Your task to perform on an android device: search for starred emails in the gmail app Image 0: 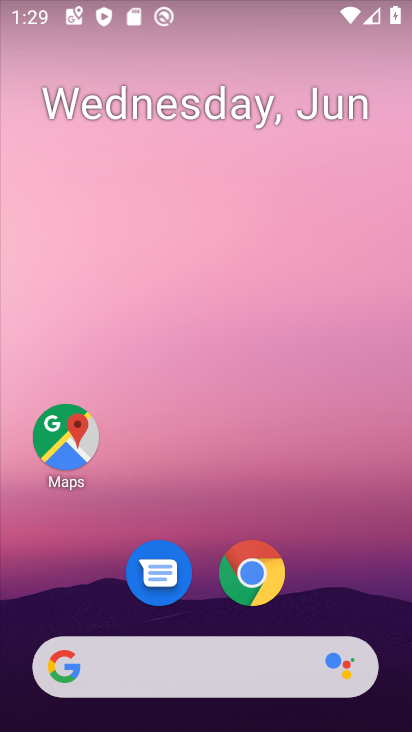
Step 0: drag from (338, 596) to (293, 190)
Your task to perform on an android device: search for starred emails in the gmail app Image 1: 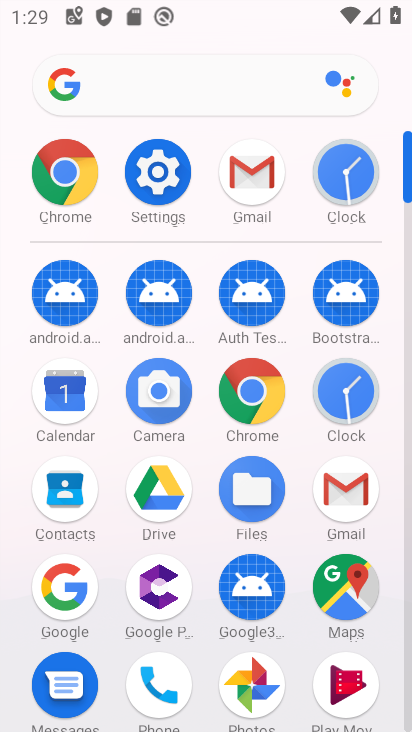
Step 1: click (328, 500)
Your task to perform on an android device: search for starred emails in the gmail app Image 2: 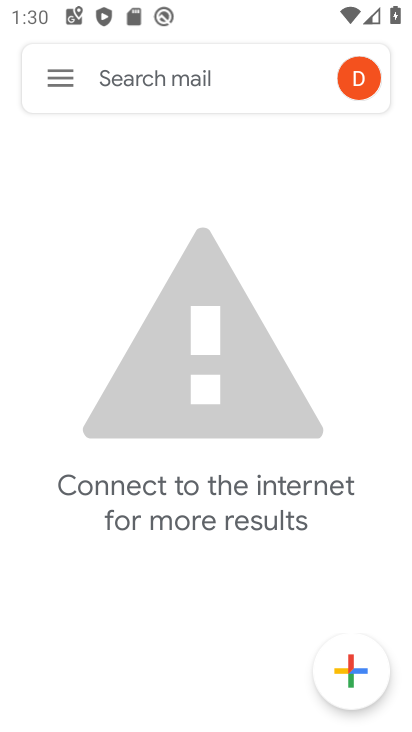
Step 2: click (66, 72)
Your task to perform on an android device: search for starred emails in the gmail app Image 3: 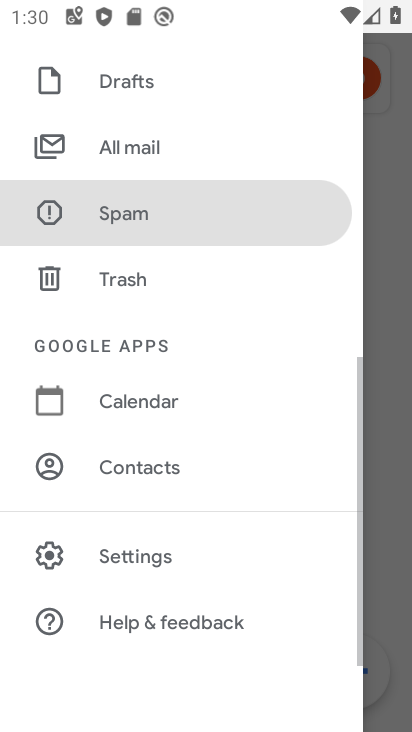
Step 3: drag from (228, 202) to (210, 545)
Your task to perform on an android device: search for starred emails in the gmail app Image 4: 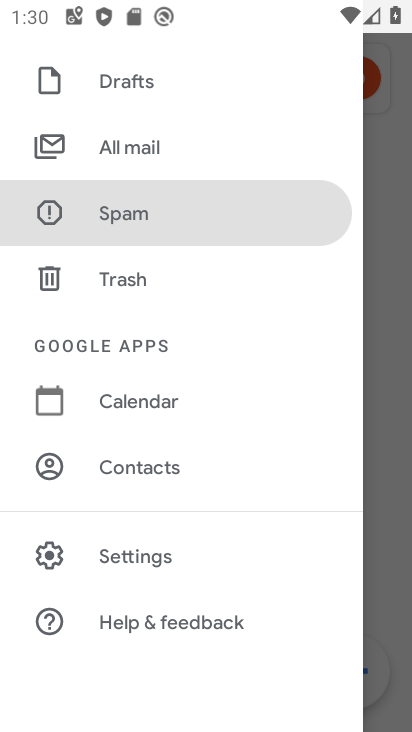
Step 4: drag from (178, 145) to (237, 514)
Your task to perform on an android device: search for starred emails in the gmail app Image 5: 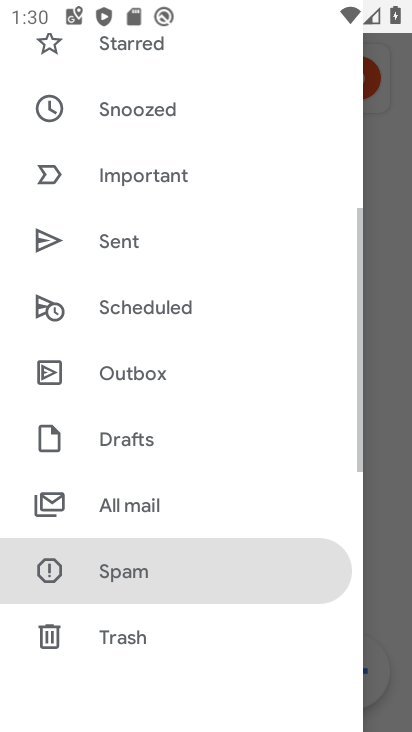
Step 5: drag from (233, 193) to (258, 597)
Your task to perform on an android device: search for starred emails in the gmail app Image 6: 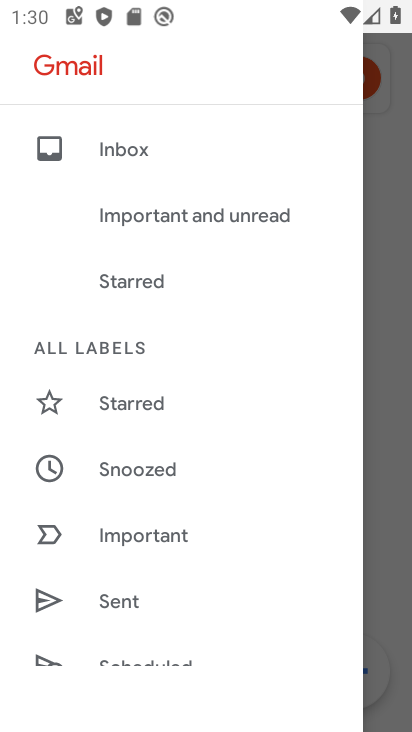
Step 6: click (178, 401)
Your task to perform on an android device: search for starred emails in the gmail app Image 7: 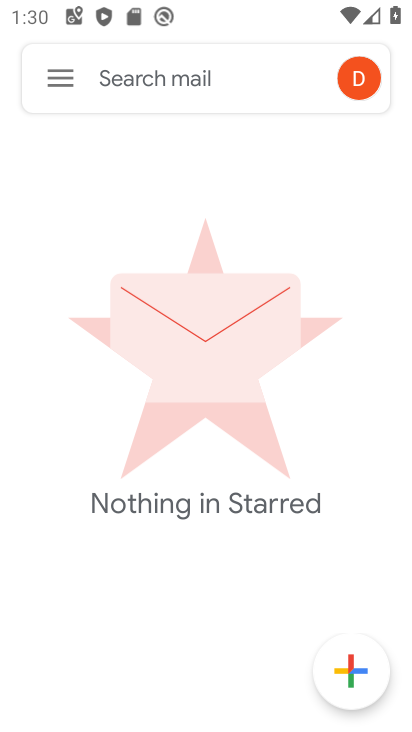
Step 7: task complete